Your task to perform on an android device: turn on airplane mode Image 0: 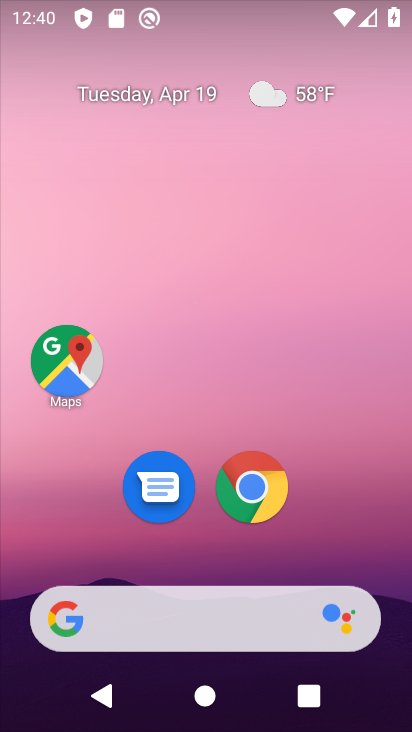
Step 0: drag from (221, 294) to (255, 56)
Your task to perform on an android device: turn on airplane mode Image 1: 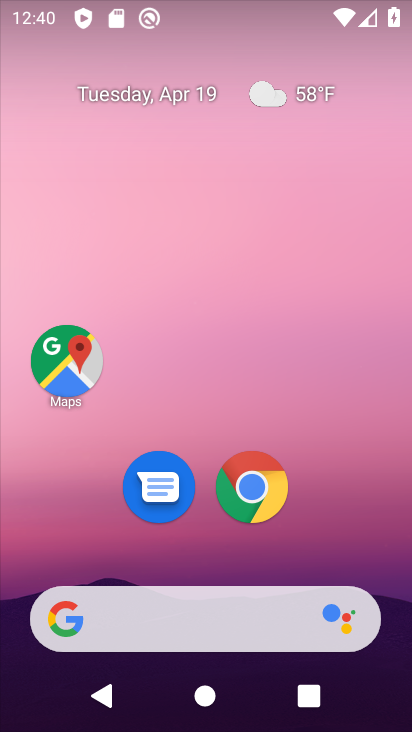
Step 1: drag from (208, 502) to (208, 94)
Your task to perform on an android device: turn on airplane mode Image 2: 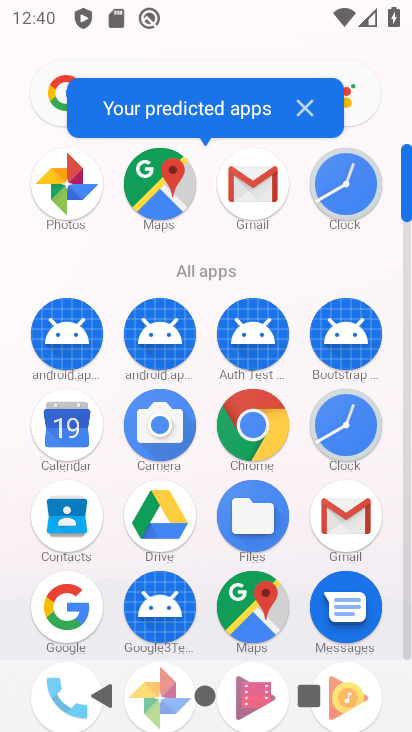
Step 2: drag from (211, 642) to (211, 158)
Your task to perform on an android device: turn on airplane mode Image 3: 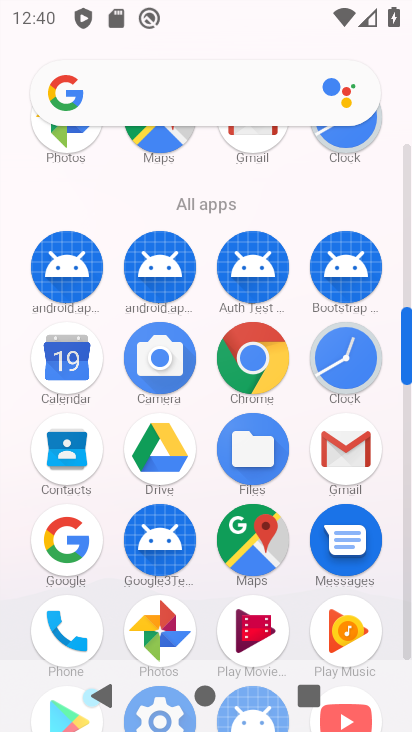
Step 3: drag from (204, 543) to (220, 271)
Your task to perform on an android device: turn on airplane mode Image 4: 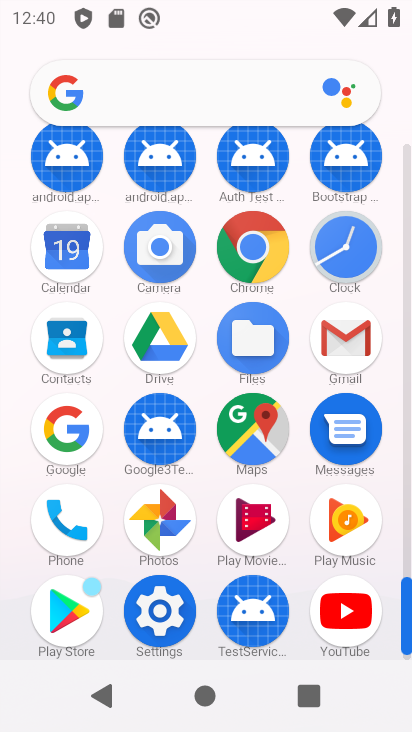
Step 4: click (159, 605)
Your task to perform on an android device: turn on airplane mode Image 5: 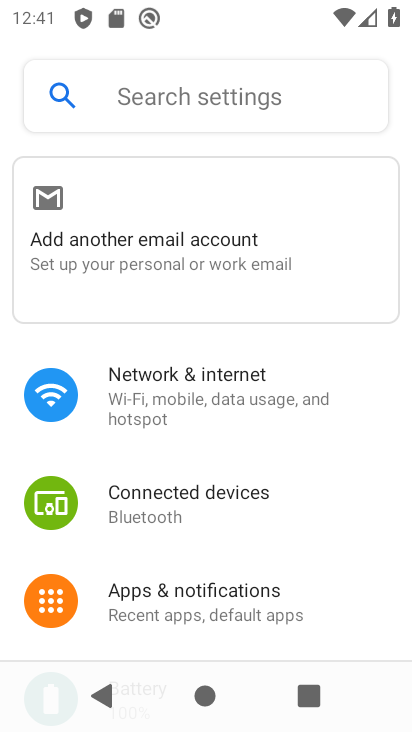
Step 5: click (177, 376)
Your task to perform on an android device: turn on airplane mode Image 6: 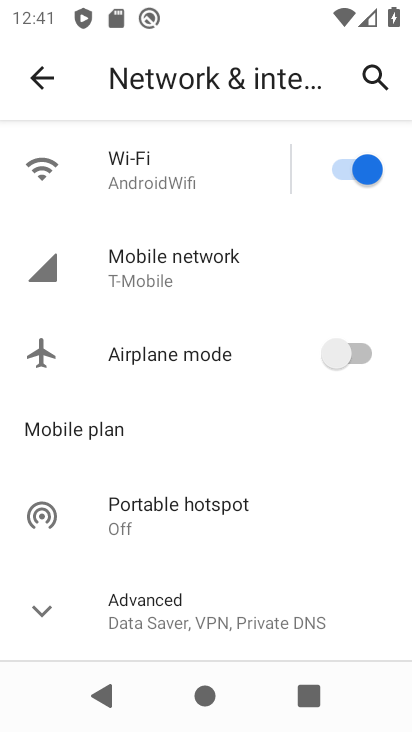
Step 6: click (363, 345)
Your task to perform on an android device: turn on airplane mode Image 7: 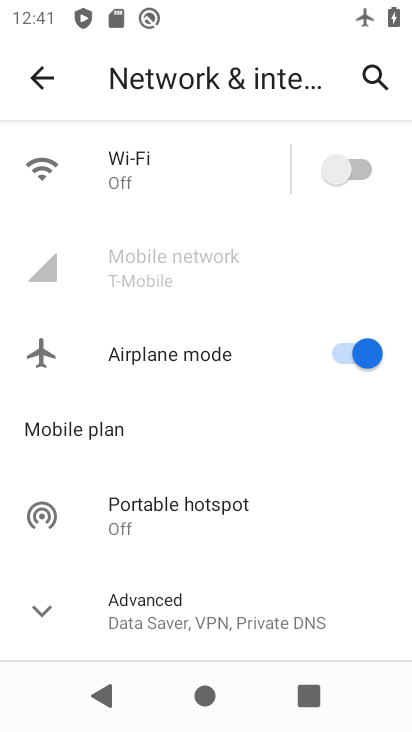
Step 7: task complete